Your task to perform on an android device: turn on notifications settings in the gmail app Image 0: 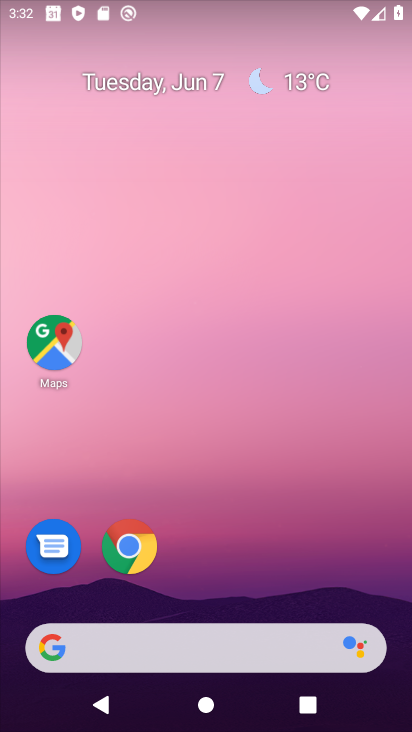
Step 0: drag from (181, 608) to (158, 88)
Your task to perform on an android device: turn on notifications settings in the gmail app Image 1: 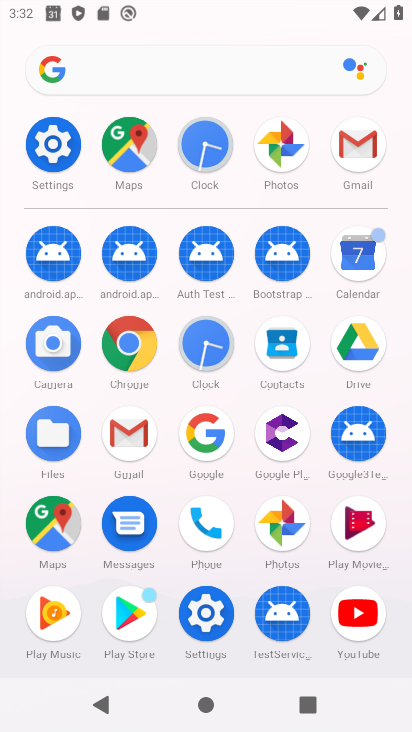
Step 1: click (56, 132)
Your task to perform on an android device: turn on notifications settings in the gmail app Image 2: 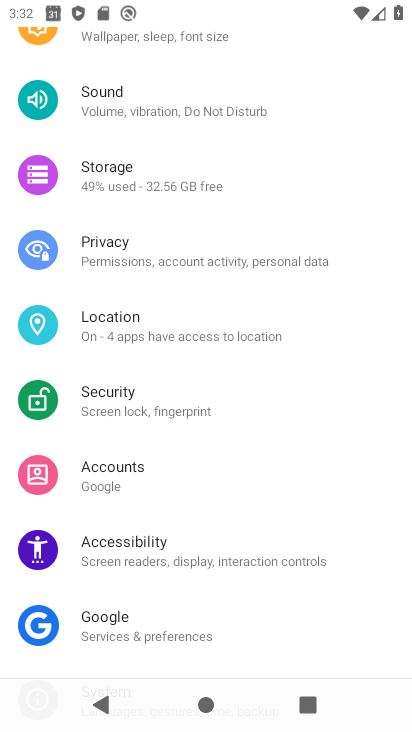
Step 2: drag from (56, 132) to (164, 618)
Your task to perform on an android device: turn on notifications settings in the gmail app Image 3: 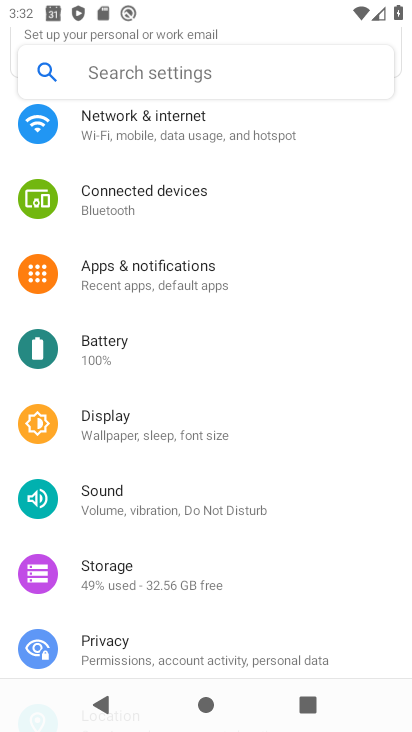
Step 3: click (109, 290)
Your task to perform on an android device: turn on notifications settings in the gmail app Image 4: 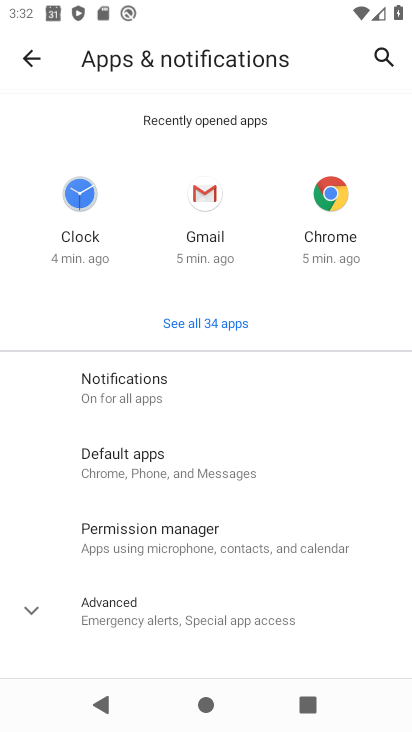
Step 4: click (197, 214)
Your task to perform on an android device: turn on notifications settings in the gmail app Image 5: 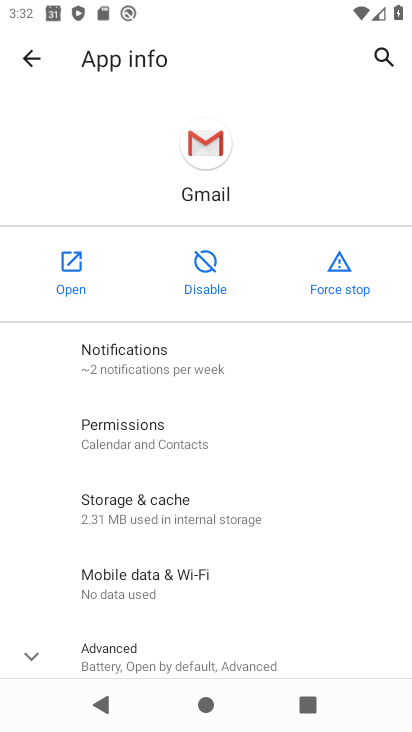
Step 5: click (263, 381)
Your task to perform on an android device: turn on notifications settings in the gmail app Image 6: 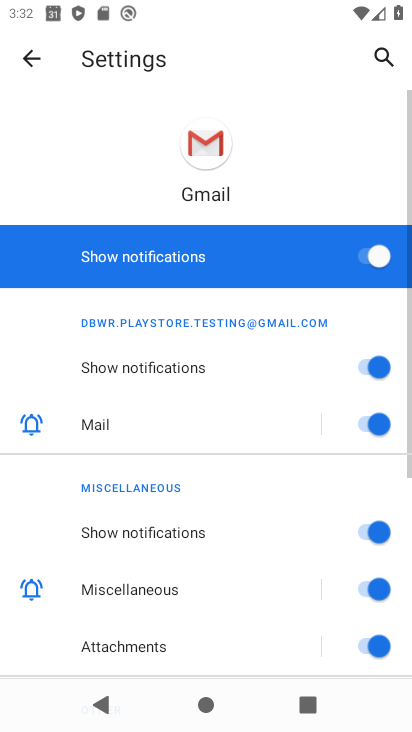
Step 6: task complete